Your task to perform on an android device: Open privacy settings Image 0: 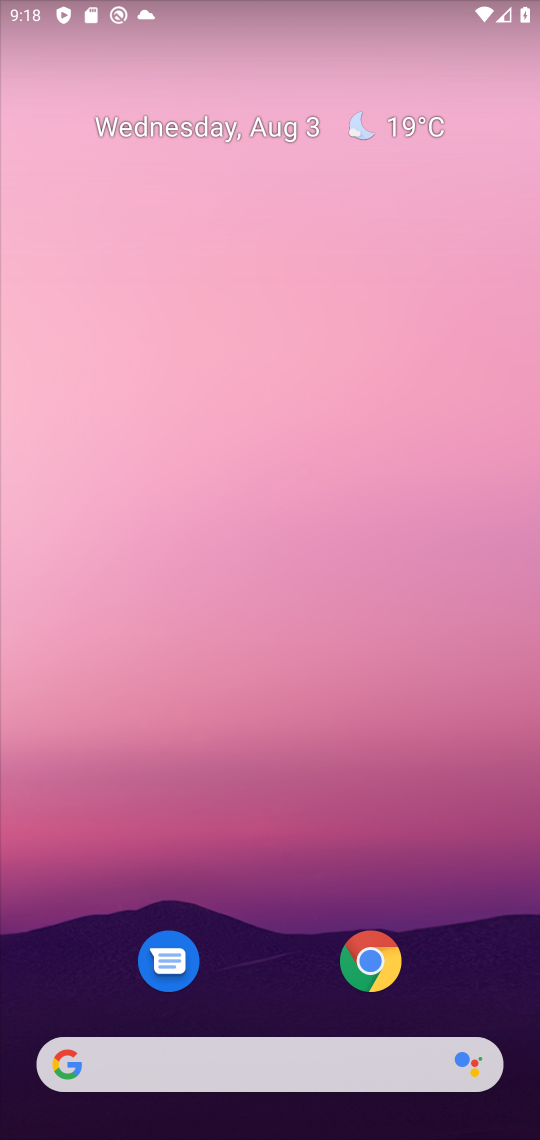
Step 0: drag from (261, 1015) to (133, 150)
Your task to perform on an android device: Open privacy settings Image 1: 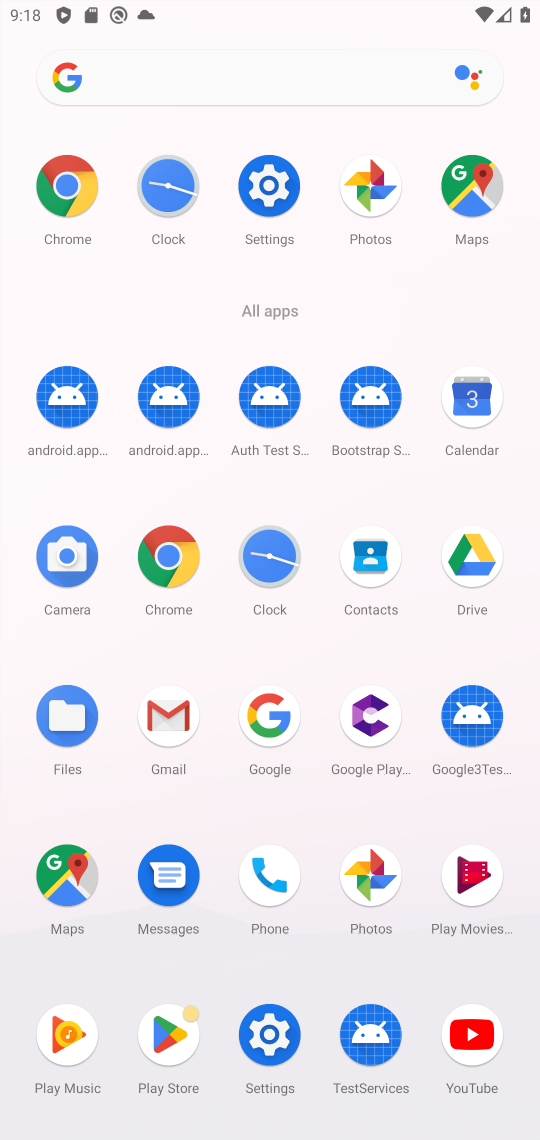
Step 1: click (261, 197)
Your task to perform on an android device: Open privacy settings Image 2: 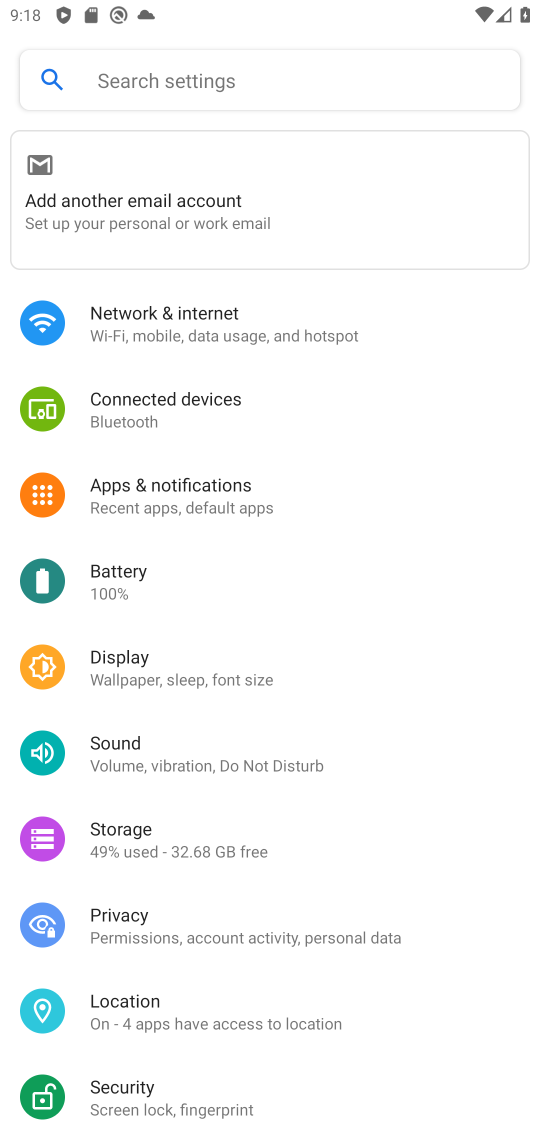
Step 2: click (80, 913)
Your task to perform on an android device: Open privacy settings Image 3: 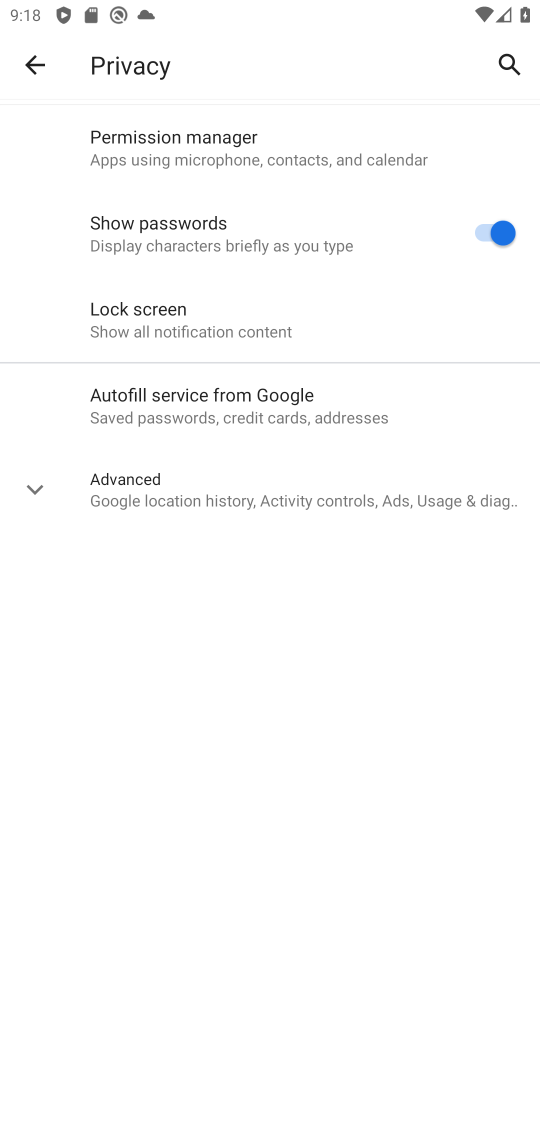
Step 3: task complete